Your task to perform on an android device: turn on location history Image 0: 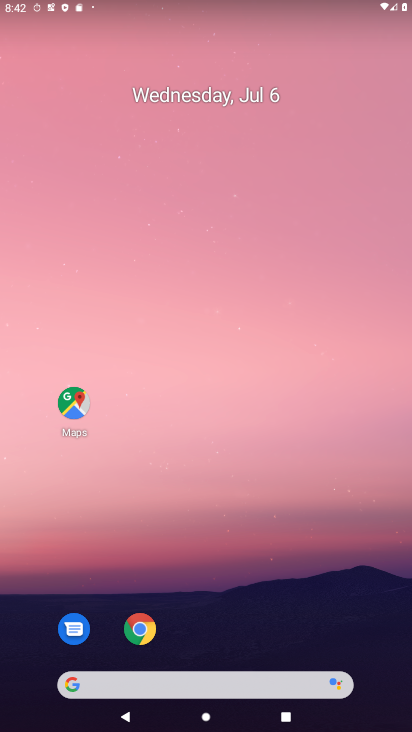
Step 0: drag from (242, 727) to (236, 153)
Your task to perform on an android device: turn on location history Image 1: 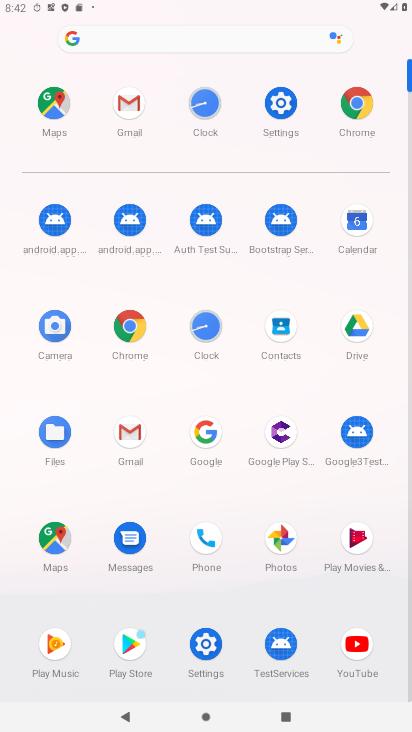
Step 1: click (280, 107)
Your task to perform on an android device: turn on location history Image 2: 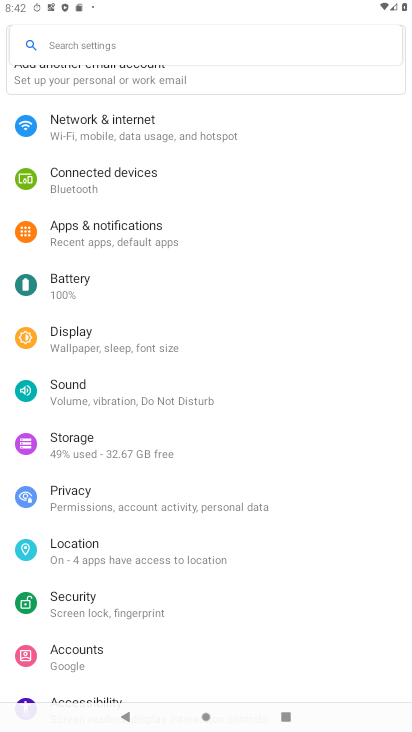
Step 2: click (86, 549)
Your task to perform on an android device: turn on location history Image 3: 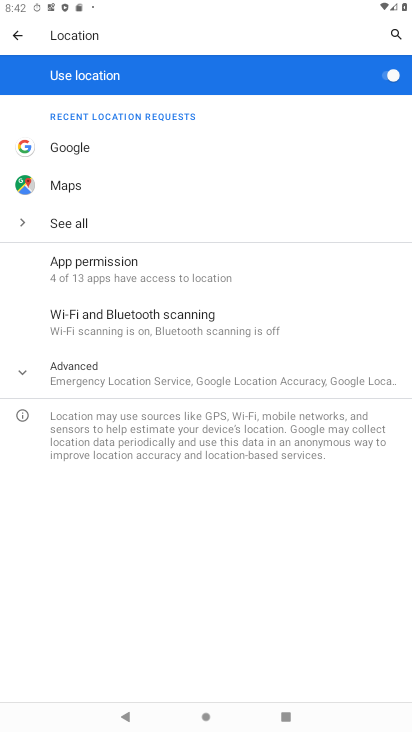
Step 3: click (91, 381)
Your task to perform on an android device: turn on location history Image 4: 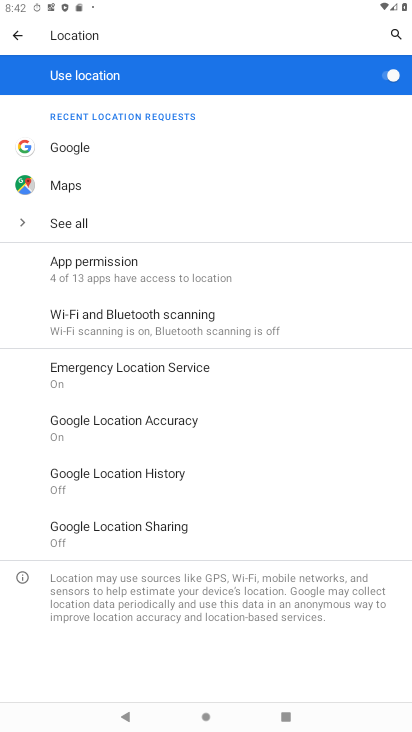
Step 4: click (121, 475)
Your task to perform on an android device: turn on location history Image 5: 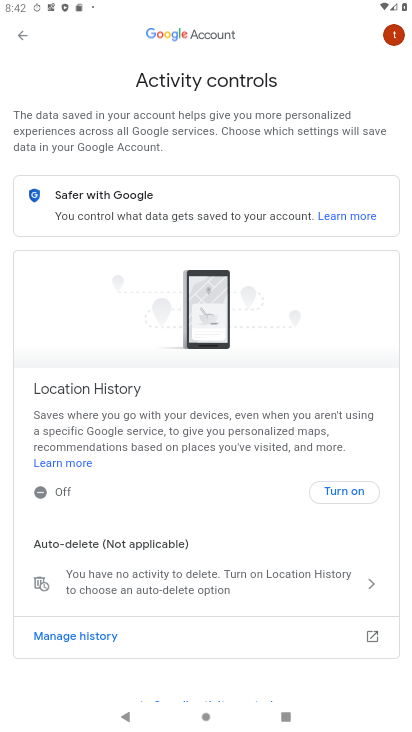
Step 5: click (348, 491)
Your task to perform on an android device: turn on location history Image 6: 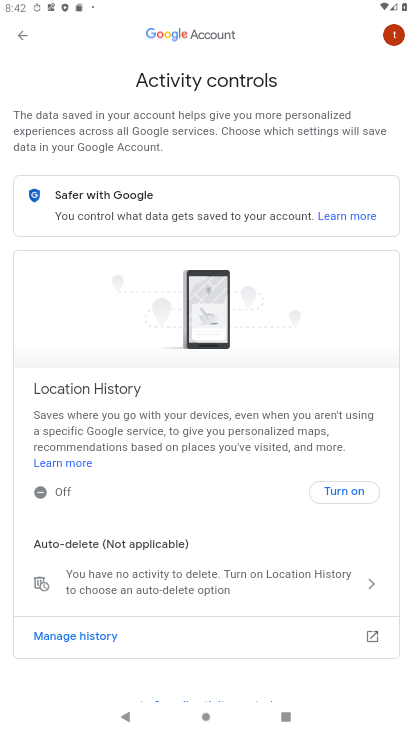
Step 6: click (341, 491)
Your task to perform on an android device: turn on location history Image 7: 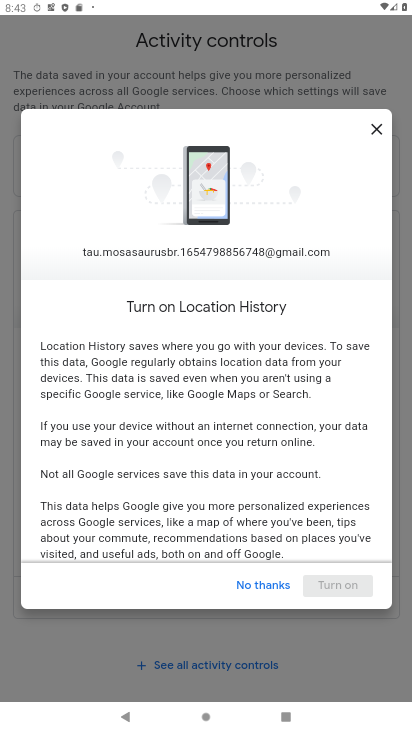
Step 7: drag from (312, 500) to (279, 261)
Your task to perform on an android device: turn on location history Image 8: 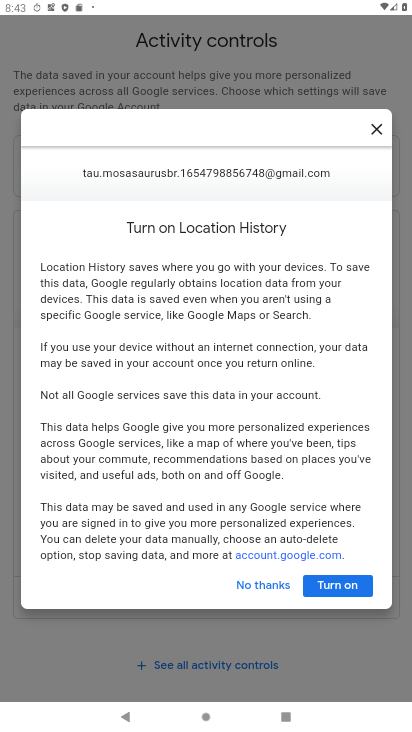
Step 8: click (344, 583)
Your task to perform on an android device: turn on location history Image 9: 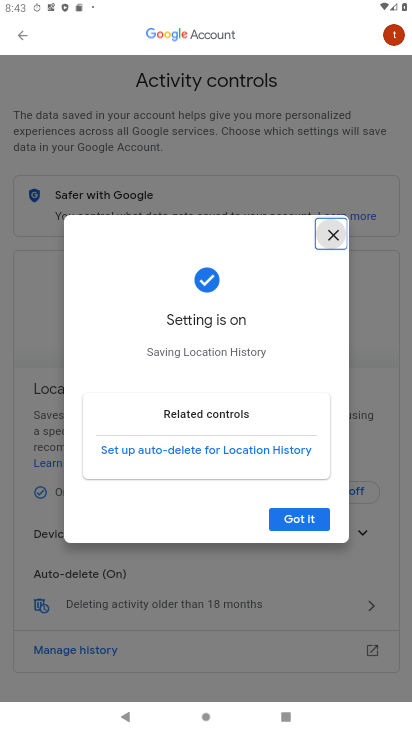
Step 9: click (301, 515)
Your task to perform on an android device: turn on location history Image 10: 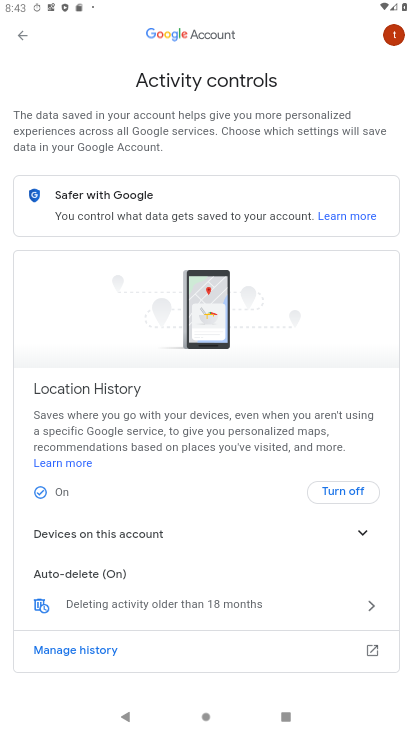
Step 10: task complete